Your task to perform on an android device: move an email to a new category in the gmail app Image 0: 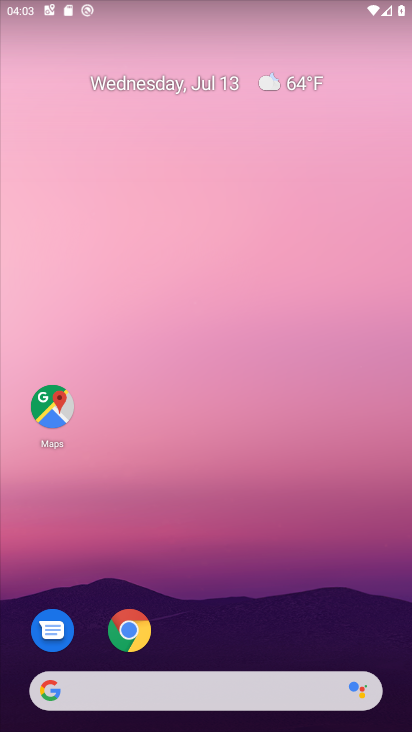
Step 0: drag from (191, 612) to (205, 160)
Your task to perform on an android device: move an email to a new category in the gmail app Image 1: 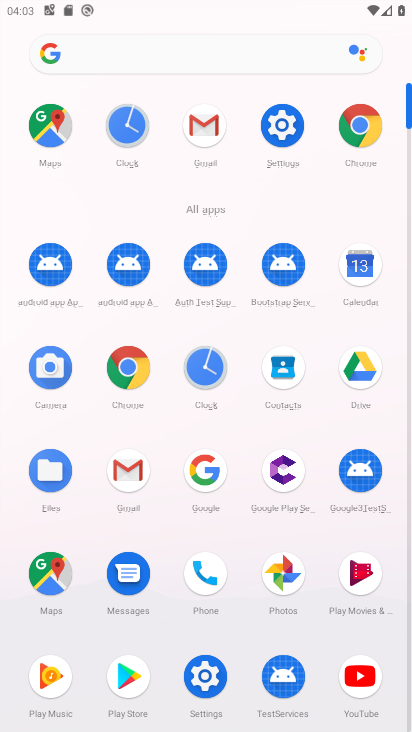
Step 1: click (213, 125)
Your task to perform on an android device: move an email to a new category in the gmail app Image 2: 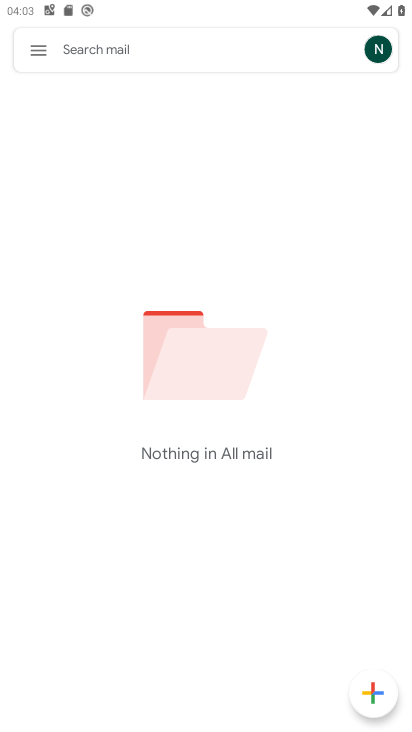
Step 2: task complete